Your task to perform on an android device: open the mobile data screen to see how much data has been used Image 0: 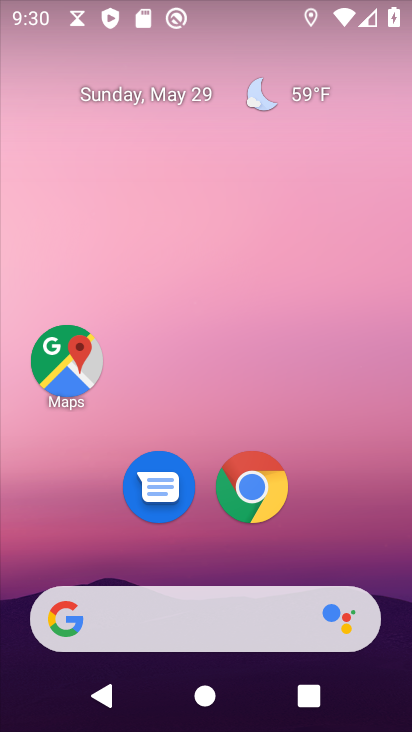
Step 0: drag from (322, 542) to (342, 158)
Your task to perform on an android device: open the mobile data screen to see how much data has been used Image 1: 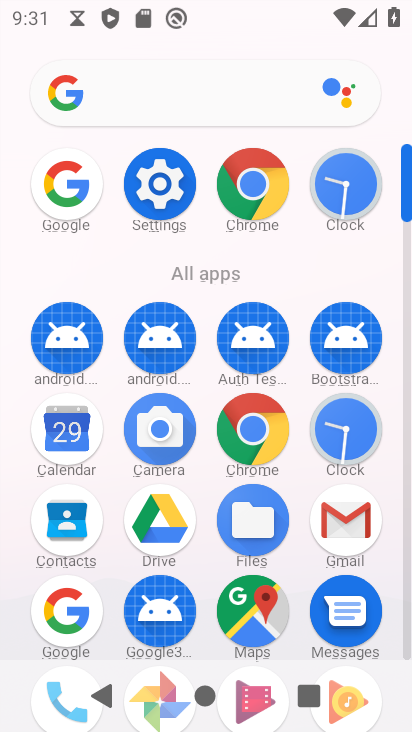
Step 1: click (160, 185)
Your task to perform on an android device: open the mobile data screen to see how much data has been used Image 2: 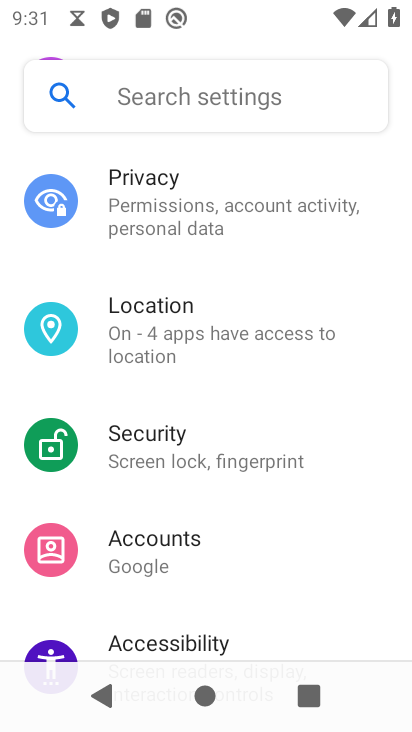
Step 2: drag from (200, 510) to (261, 374)
Your task to perform on an android device: open the mobile data screen to see how much data has been used Image 3: 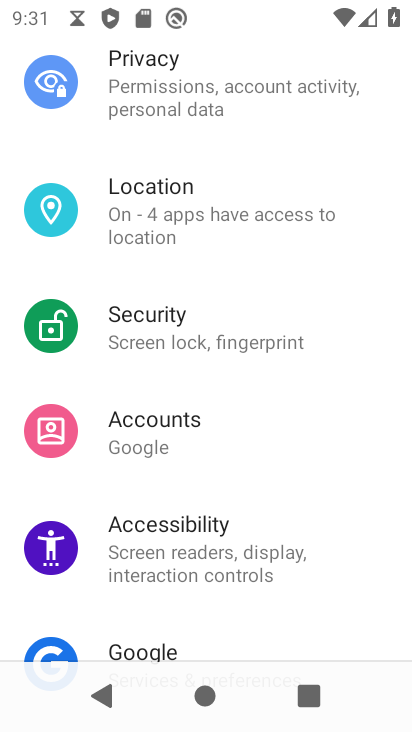
Step 3: drag from (182, 486) to (247, 399)
Your task to perform on an android device: open the mobile data screen to see how much data has been used Image 4: 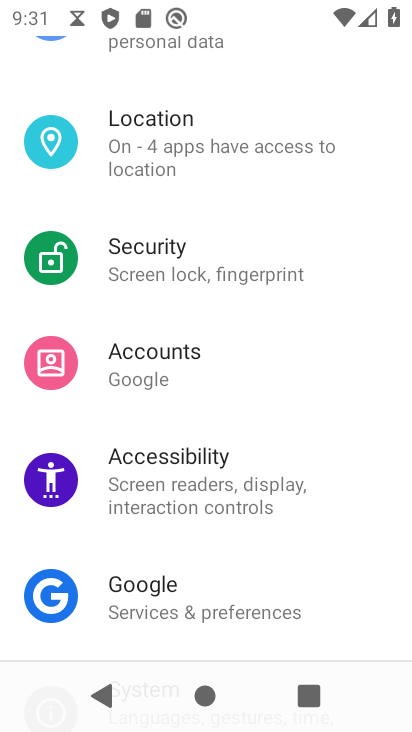
Step 4: drag from (177, 539) to (239, 387)
Your task to perform on an android device: open the mobile data screen to see how much data has been used Image 5: 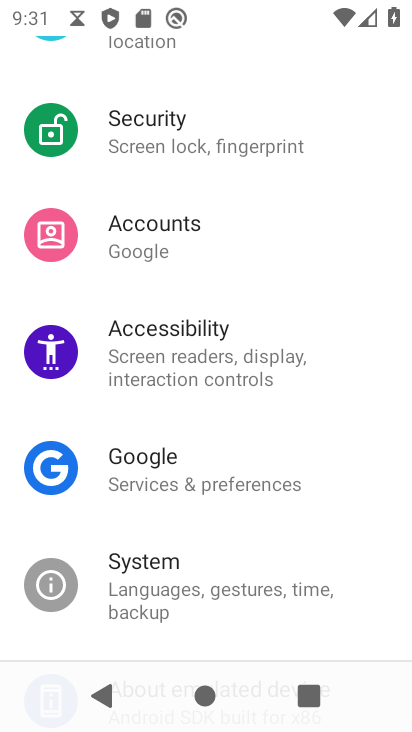
Step 5: drag from (211, 554) to (267, 410)
Your task to perform on an android device: open the mobile data screen to see how much data has been used Image 6: 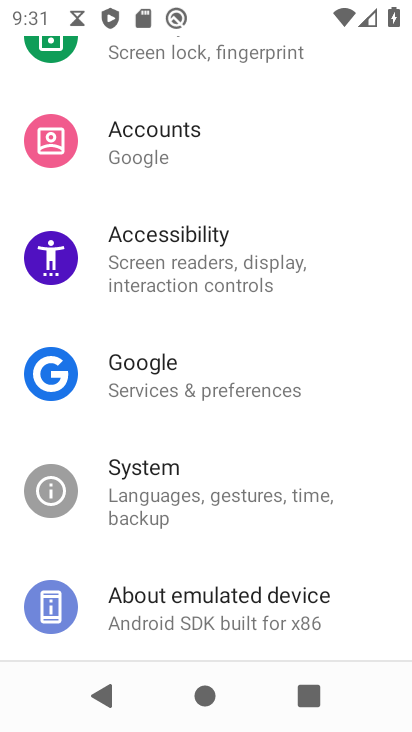
Step 6: drag from (257, 286) to (229, 550)
Your task to perform on an android device: open the mobile data screen to see how much data has been used Image 7: 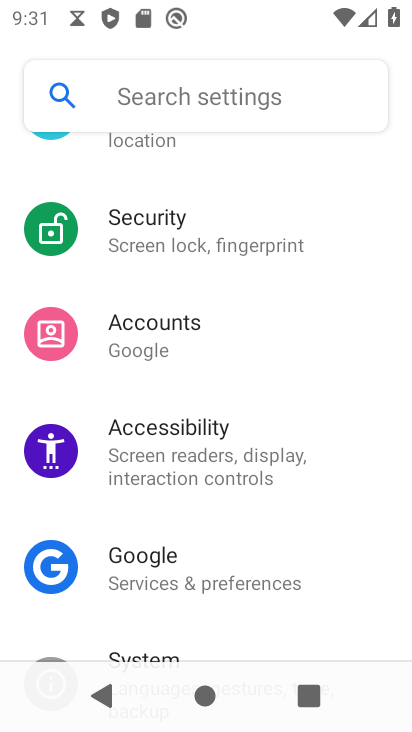
Step 7: drag from (256, 282) to (250, 581)
Your task to perform on an android device: open the mobile data screen to see how much data has been used Image 8: 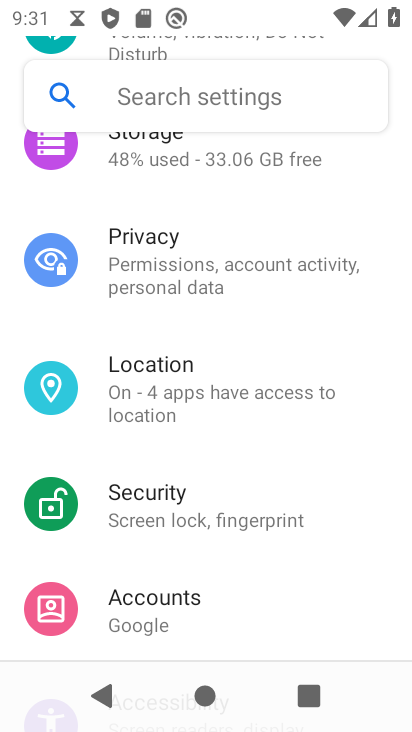
Step 8: drag from (210, 333) to (196, 559)
Your task to perform on an android device: open the mobile data screen to see how much data has been used Image 9: 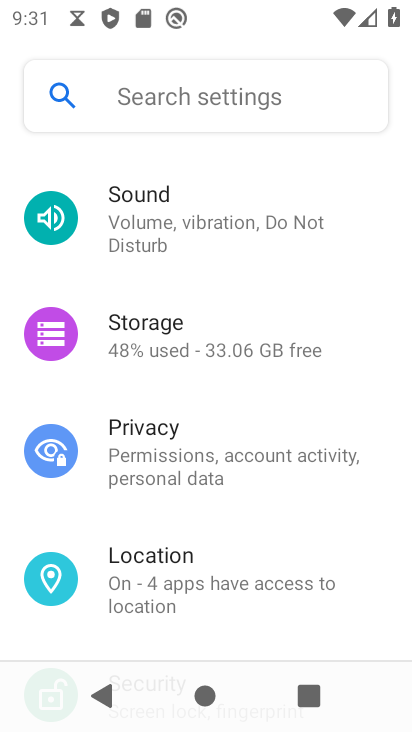
Step 9: drag from (233, 306) to (247, 499)
Your task to perform on an android device: open the mobile data screen to see how much data has been used Image 10: 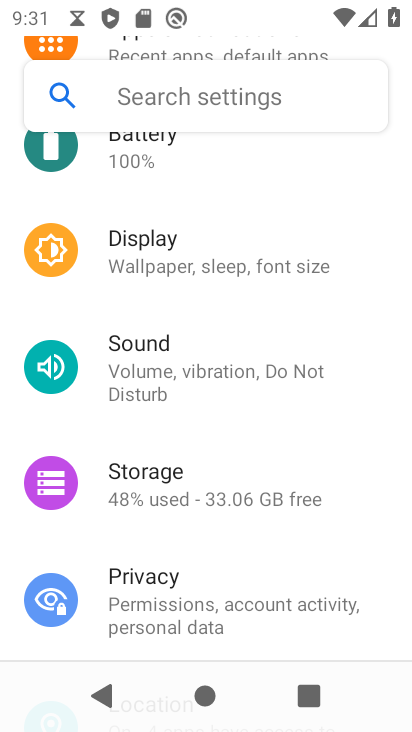
Step 10: drag from (264, 232) to (220, 395)
Your task to perform on an android device: open the mobile data screen to see how much data has been used Image 11: 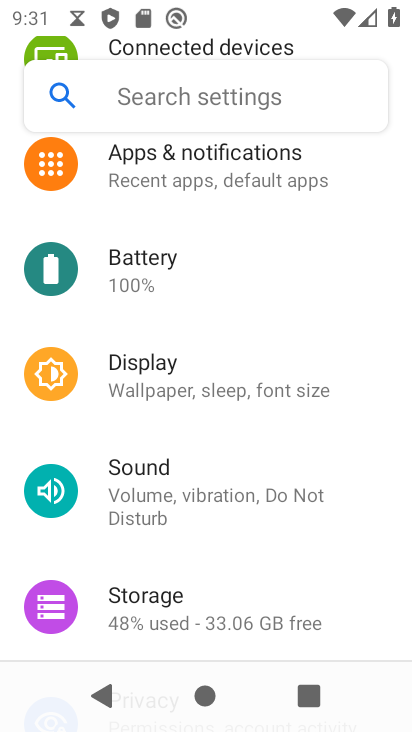
Step 11: drag from (247, 247) to (199, 457)
Your task to perform on an android device: open the mobile data screen to see how much data has been used Image 12: 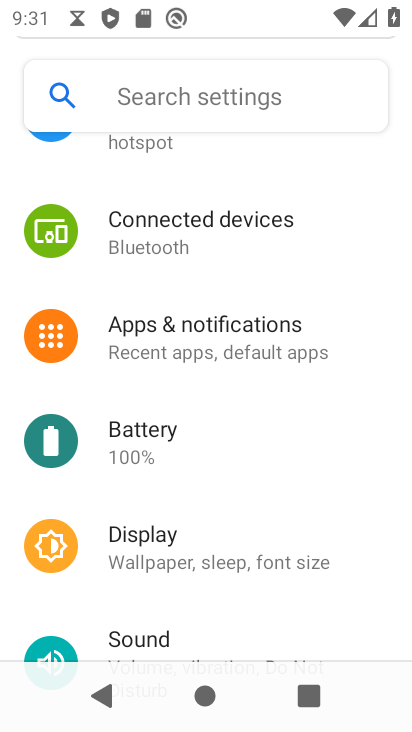
Step 12: drag from (257, 306) to (229, 499)
Your task to perform on an android device: open the mobile data screen to see how much data has been used Image 13: 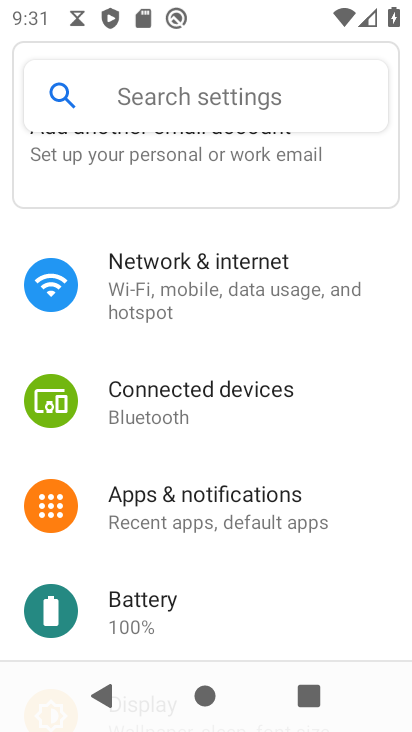
Step 13: drag from (232, 311) to (244, 453)
Your task to perform on an android device: open the mobile data screen to see how much data has been used Image 14: 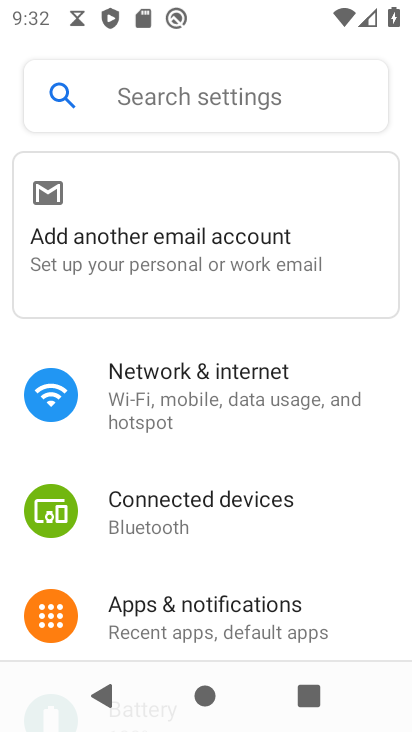
Step 14: click (213, 387)
Your task to perform on an android device: open the mobile data screen to see how much data has been used Image 15: 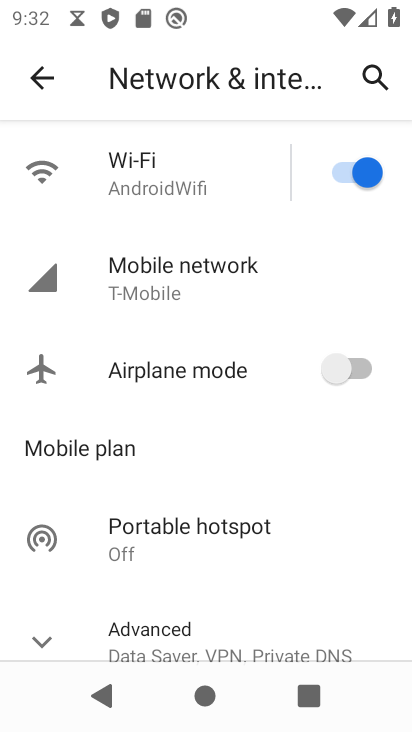
Step 15: click (162, 268)
Your task to perform on an android device: open the mobile data screen to see how much data has been used Image 16: 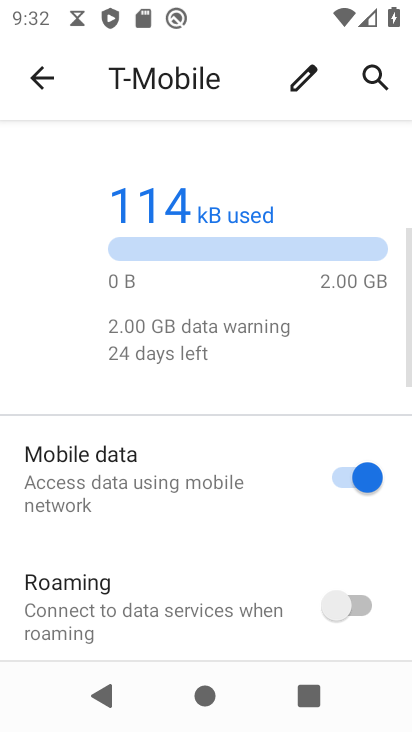
Step 16: task complete